Your task to perform on an android device: Open my contact list Image 0: 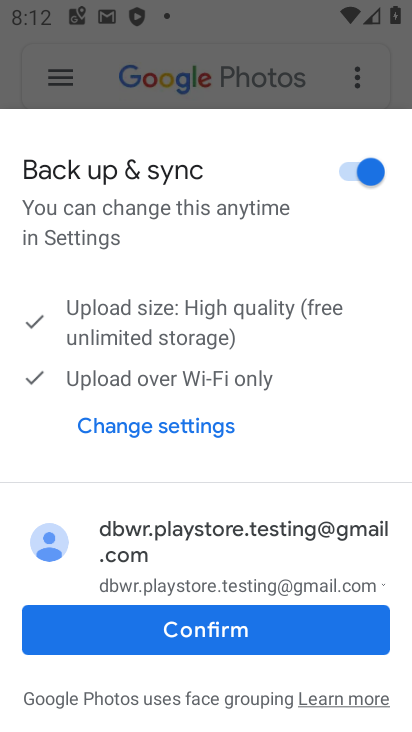
Step 0: press home button
Your task to perform on an android device: Open my contact list Image 1: 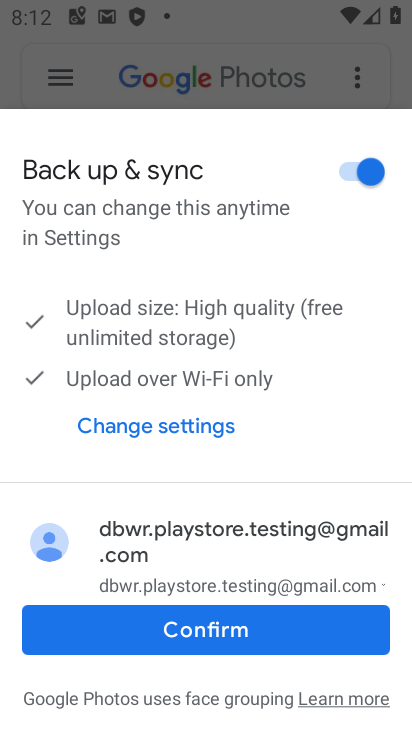
Step 1: press home button
Your task to perform on an android device: Open my contact list Image 2: 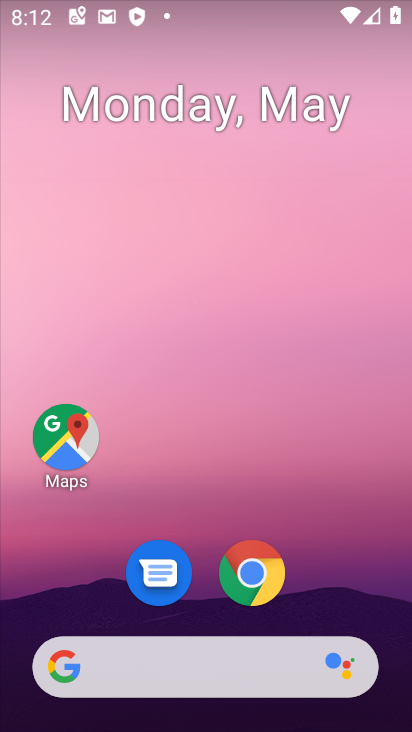
Step 2: drag from (172, 677) to (110, 399)
Your task to perform on an android device: Open my contact list Image 3: 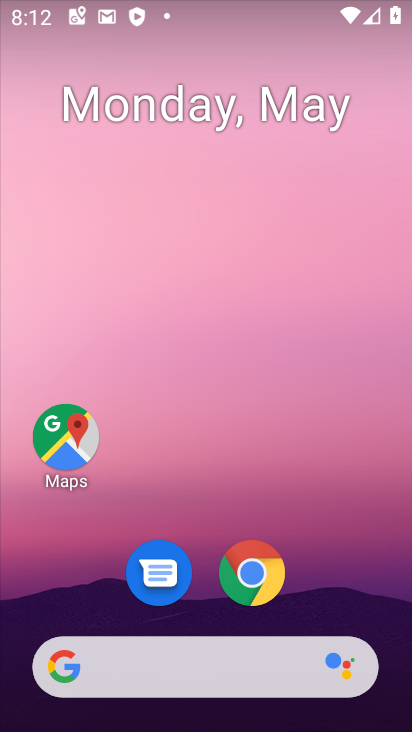
Step 3: drag from (214, 665) to (98, 103)
Your task to perform on an android device: Open my contact list Image 4: 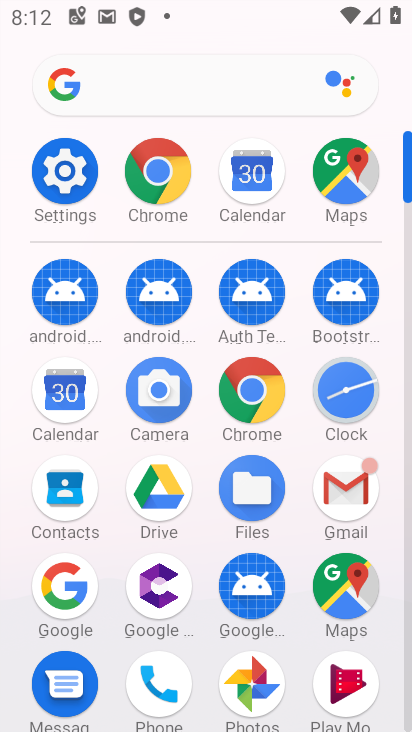
Step 4: click (66, 505)
Your task to perform on an android device: Open my contact list Image 5: 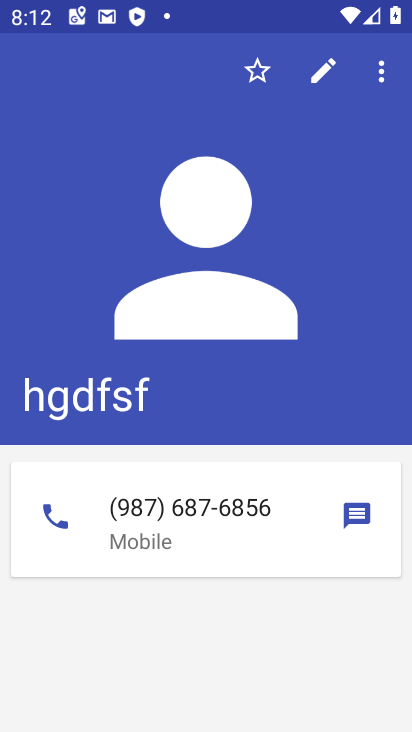
Step 5: task complete